Your task to perform on an android device: When is my next appointment? Image 0: 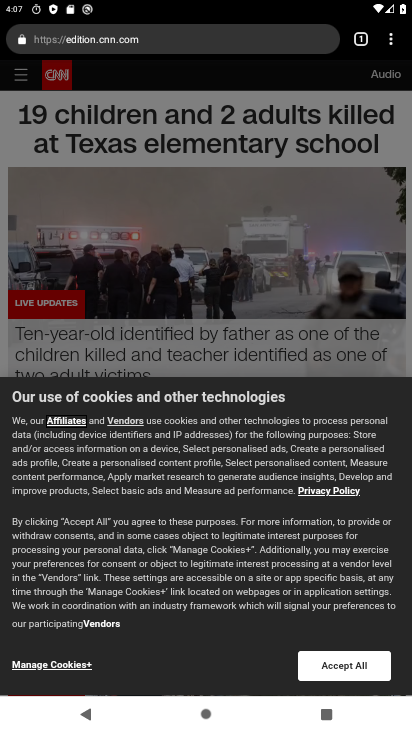
Step 0: press home button
Your task to perform on an android device: When is my next appointment? Image 1: 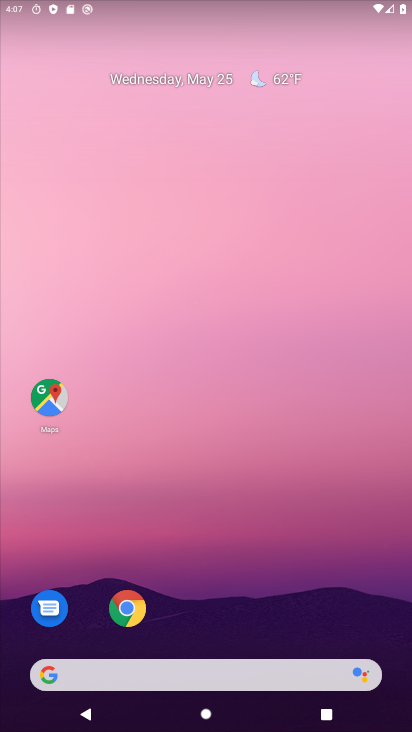
Step 1: drag from (239, 573) to (226, 129)
Your task to perform on an android device: When is my next appointment? Image 2: 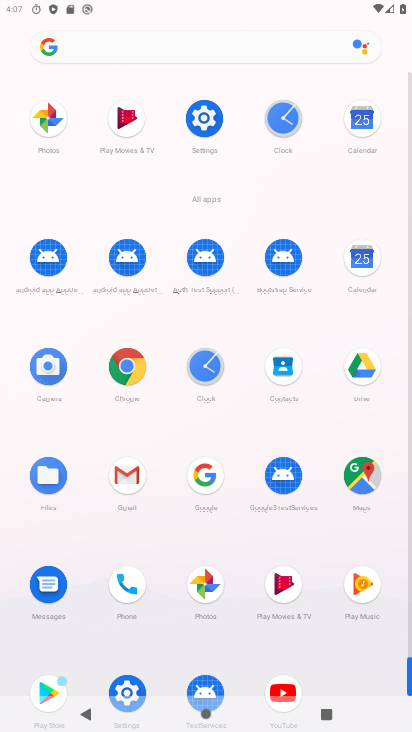
Step 2: click (362, 259)
Your task to perform on an android device: When is my next appointment? Image 3: 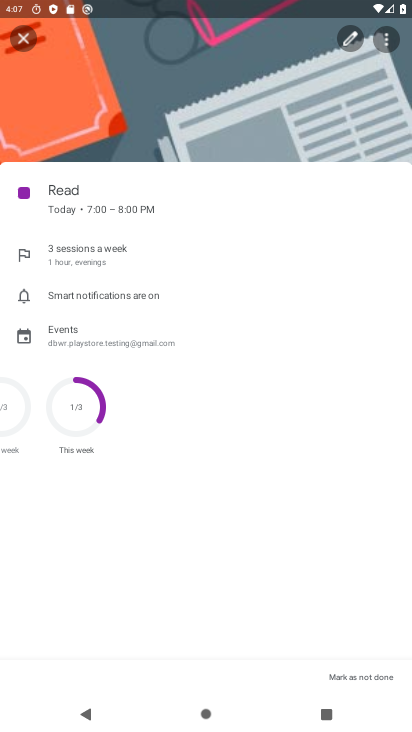
Step 3: click (24, 38)
Your task to perform on an android device: When is my next appointment? Image 4: 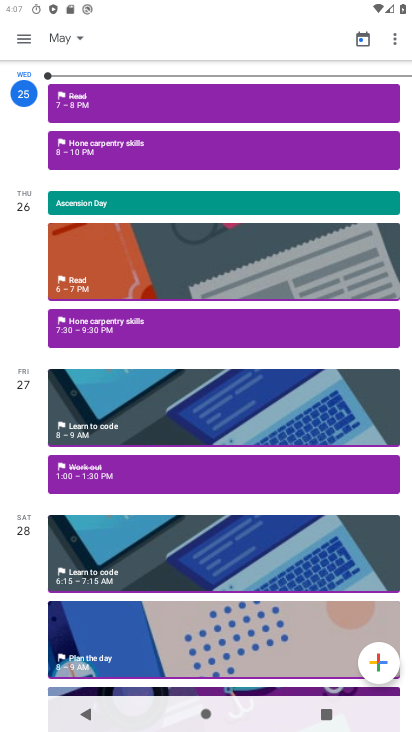
Step 4: click (362, 43)
Your task to perform on an android device: When is my next appointment? Image 5: 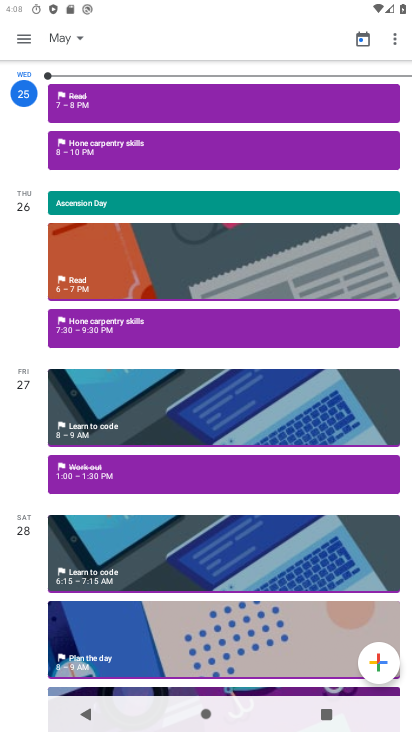
Step 5: click (79, 40)
Your task to perform on an android device: When is my next appointment? Image 6: 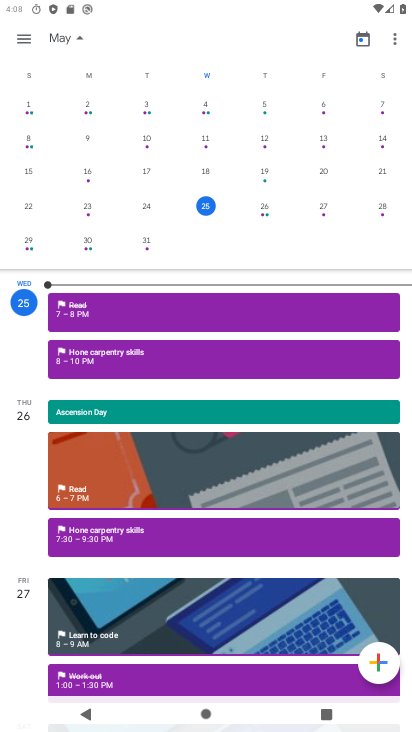
Step 6: click (267, 212)
Your task to perform on an android device: When is my next appointment? Image 7: 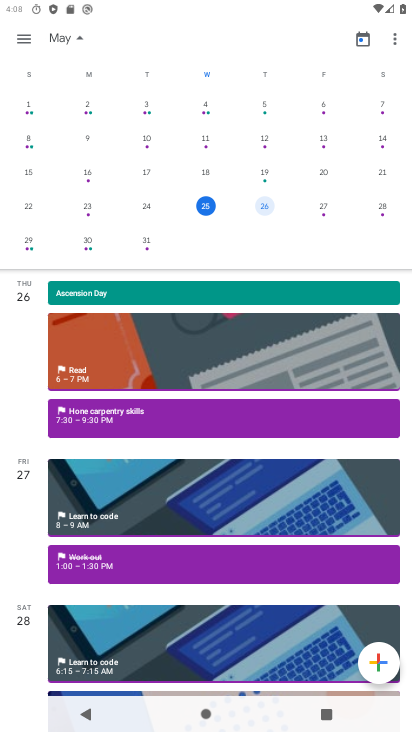
Step 7: click (200, 418)
Your task to perform on an android device: When is my next appointment? Image 8: 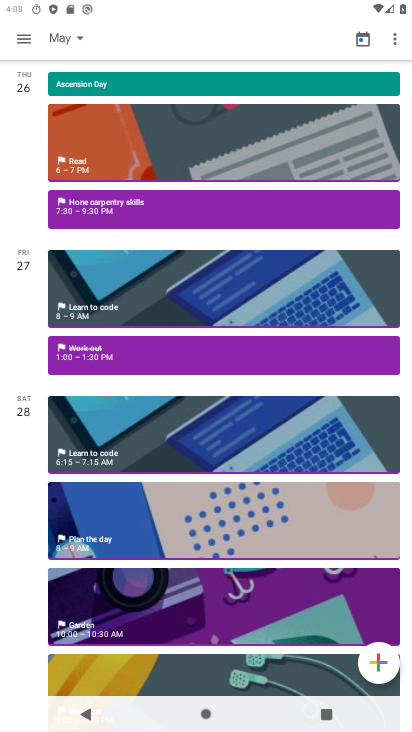
Step 8: click (202, 208)
Your task to perform on an android device: When is my next appointment? Image 9: 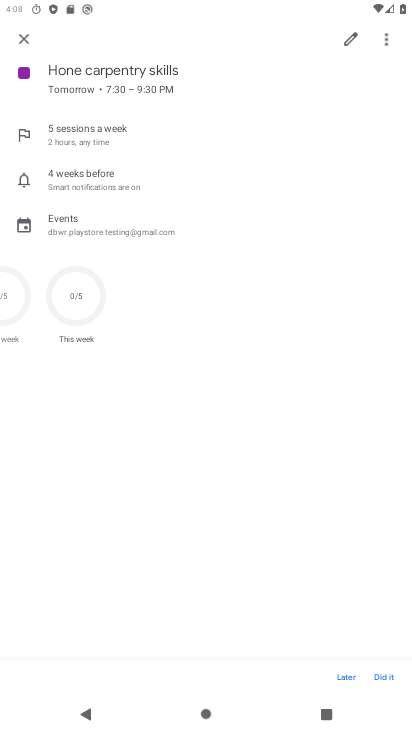
Step 9: task complete